Your task to perform on an android device: Search for seafood restaurants on Google Maps Image 0: 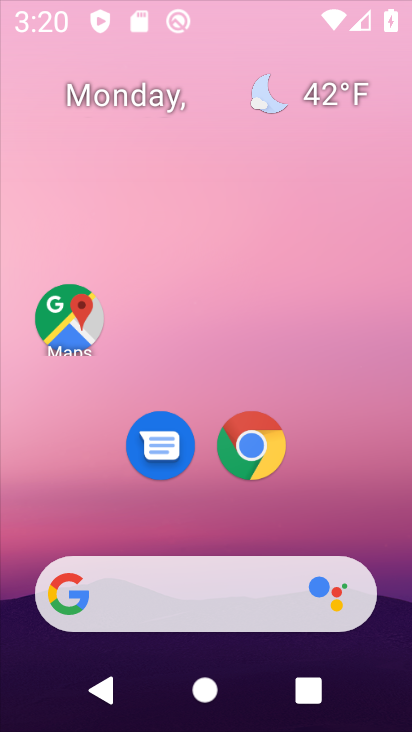
Step 0: drag from (53, 437) to (158, 1)
Your task to perform on an android device: Search for seafood restaurants on Google Maps Image 1: 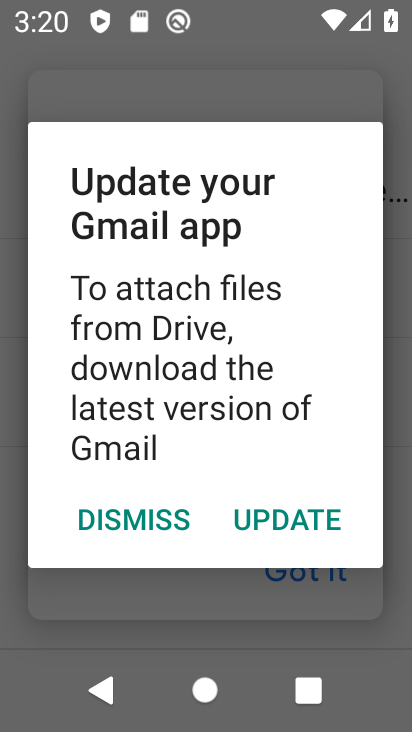
Step 1: press home button
Your task to perform on an android device: Search for seafood restaurants on Google Maps Image 2: 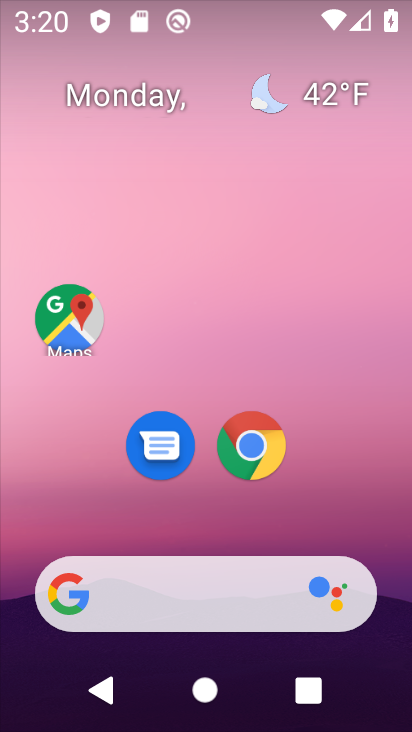
Step 2: drag from (0, 492) to (210, 68)
Your task to perform on an android device: Search for seafood restaurants on Google Maps Image 3: 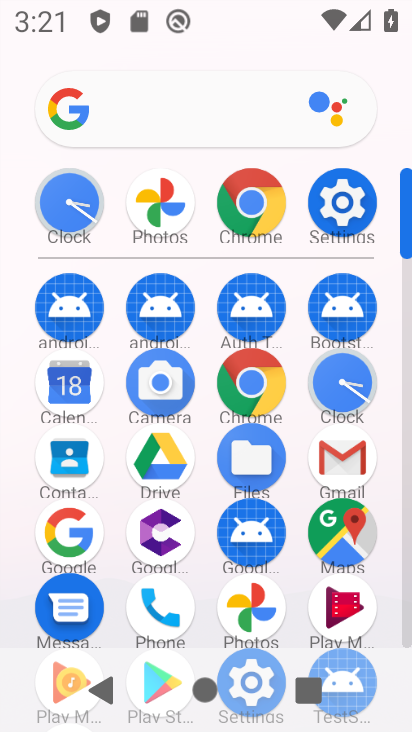
Step 3: click (346, 532)
Your task to perform on an android device: Search for seafood restaurants on Google Maps Image 4: 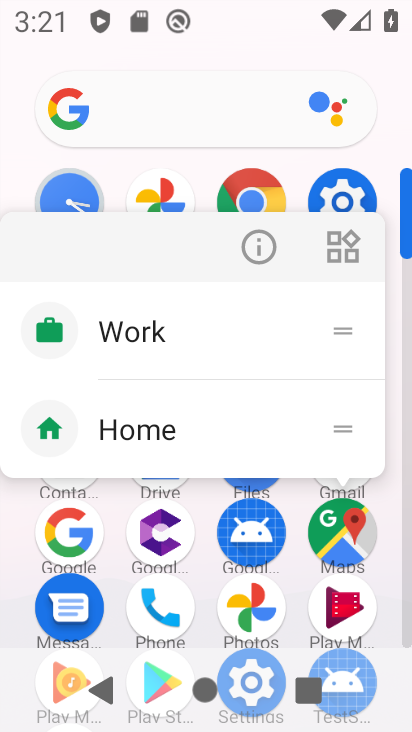
Step 4: click (346, 532)
Your task to perform on an android device: Search for seafood restaurants on Google Maps Image 5: 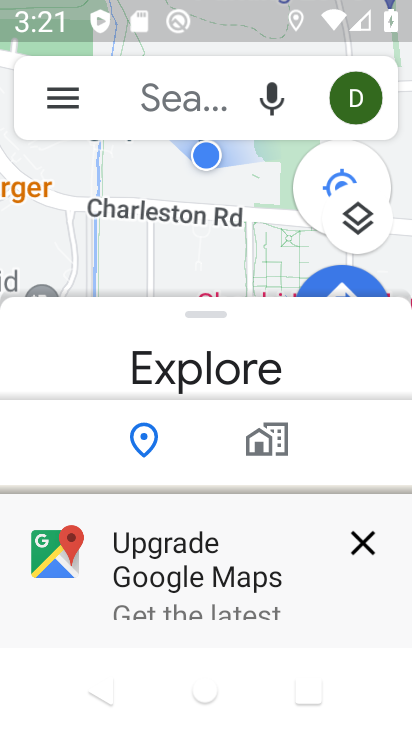
Step 5: click (177, 105)
Your task to perform on an android device: Search for seafood restaurants on Google Maps Image 6: 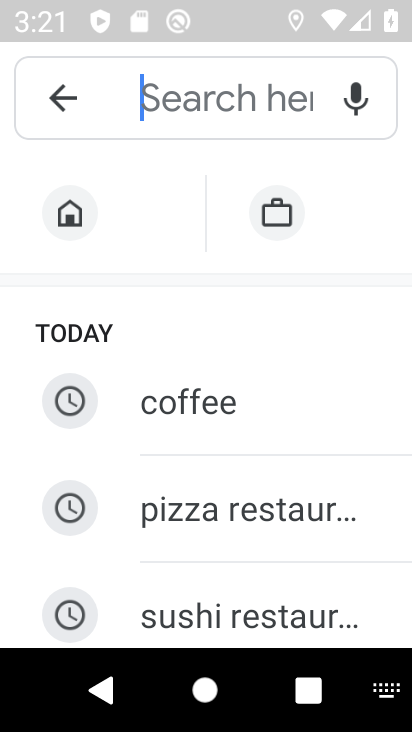
Step 6: drag from (210, 605) to (157, 152)
Your task to perform on an android device: Search for seafood restaurants on Google Maps Image 7: 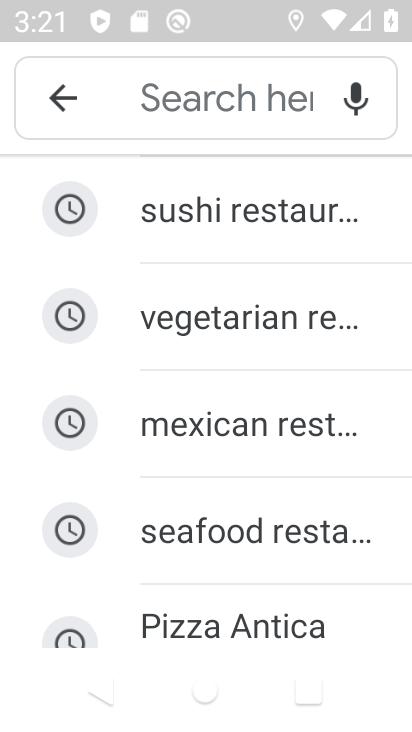
Step 7: click (217, 510)
Your task to perform on an android device: Search for seafood restaurants on Google Maps Image 8: 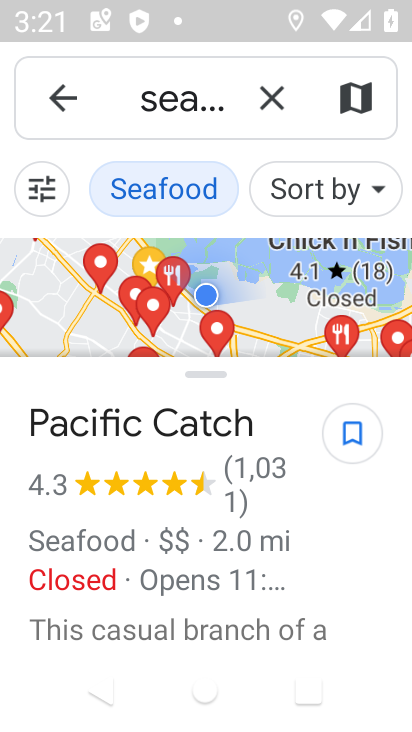
Step 8: task complete